Your task to perform on an android device: Open settings on Google Maps Image 0: 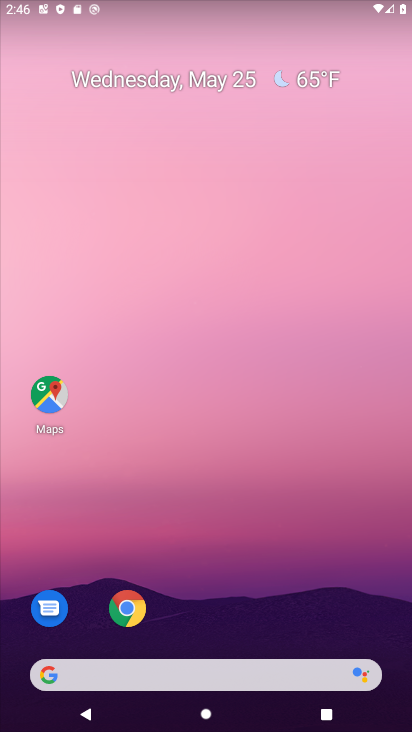
Step 0: click (46, 402)
Your task to perform on an android device: Open settings on Google Maps Image 1: 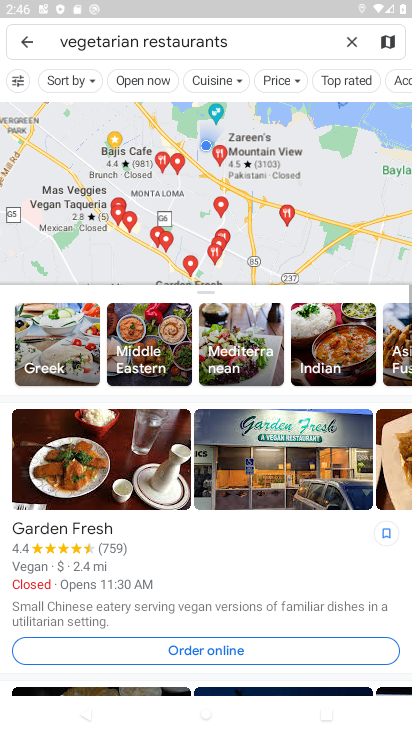
Step 1: click (351, 41)
Your task to perform on an android device: Open settings on Google Maps Image 2: 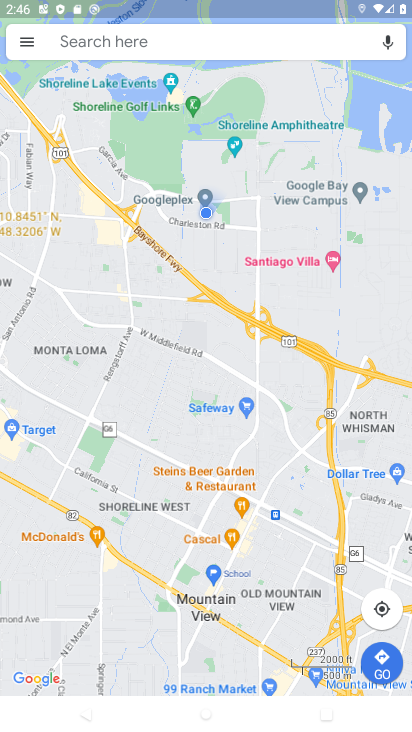
Step 2: click (28, 45)
Your task to perform on an android device: Open settings on Google Maps Image 3: 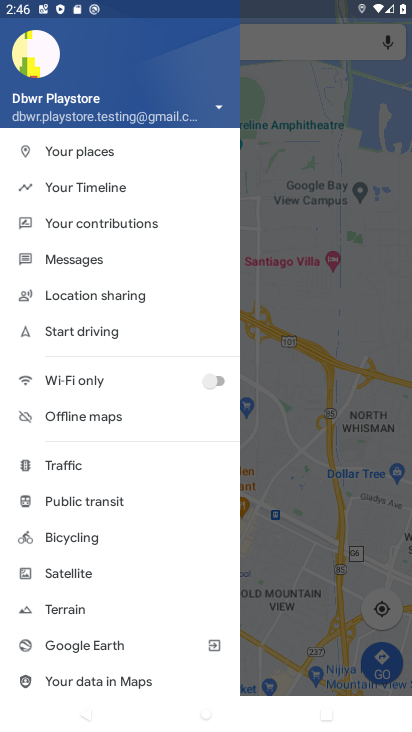
Step 3: drag from (105, 610) to (108, 382)
Your task to perform on an android device: Open settings on Google Maps Image 4: 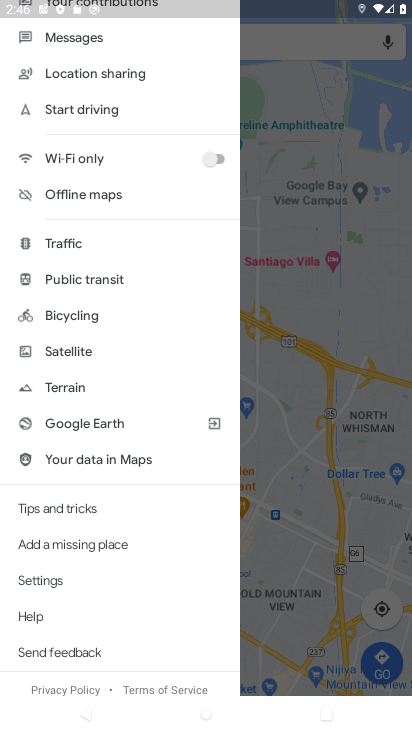
Step 4: click (37, 580)
Your task to perform on an android device: Open settings on Google Maps Image 5: 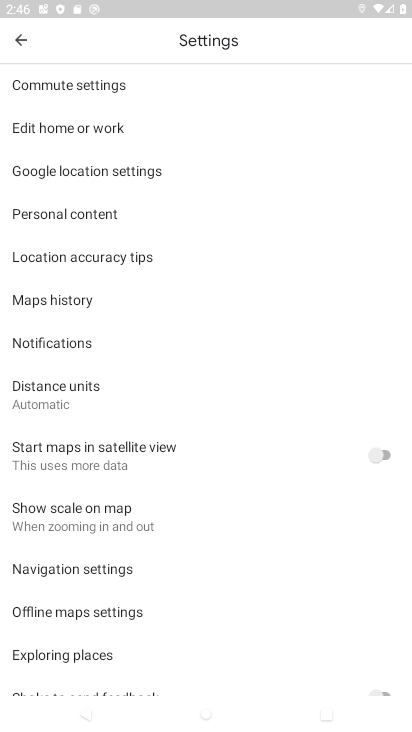
Step 5: task complete